Your task to perform on an android device: see sites visited before in the chrome app Image 0: 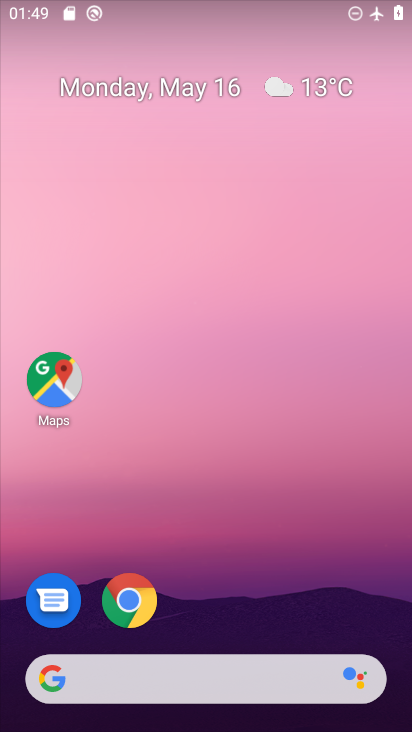
Step 0: click (127, 593)
Your task to perform on an android device: see sites visited before in the chrome app Image 1: 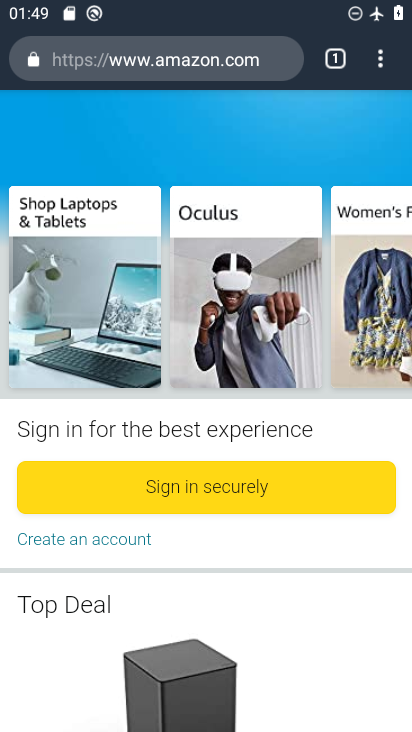
Step 1: click (379, 59)
Your task to perform on an android device: see sites visited before in the chrome app Image 2: 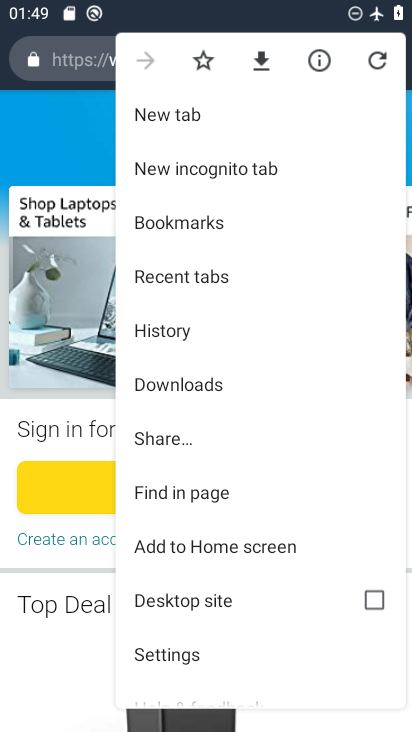
Step 2: click (202, 328)
Your task to perform on an android device: see sites visited before in the chrome app Image 3: 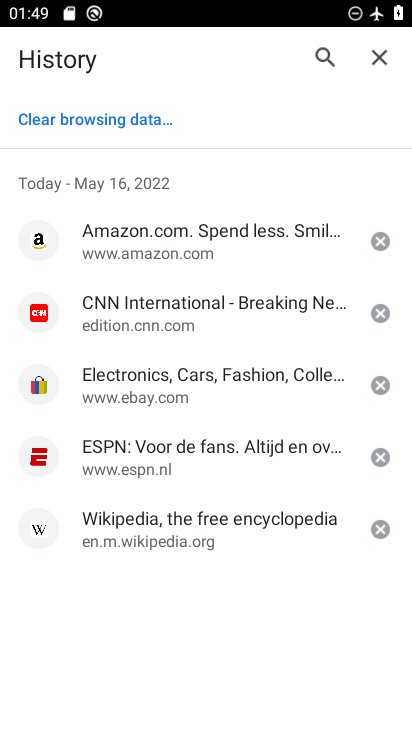
Step 3: task complete